Your task to perform on an android device: Turn off the flashlight Image 0: 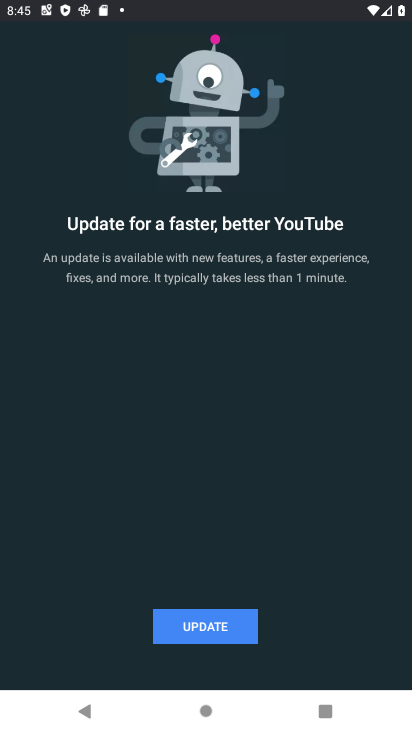
Step 0: drag from (275, 10) to (267, 728)
Your task to perform on an android device: Turn off the flashlight Image 1: 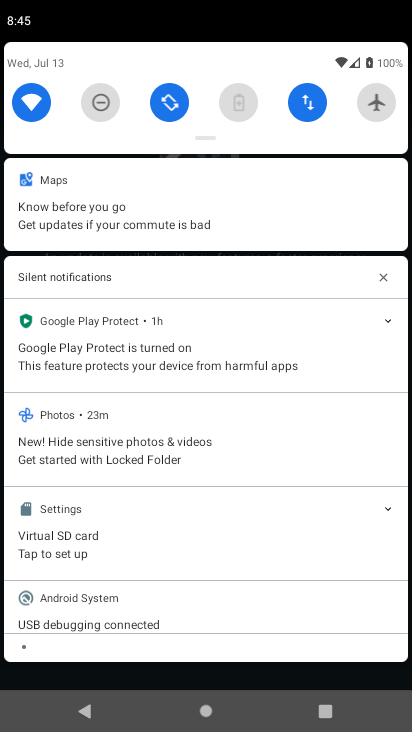
Step 1: task complete